Your task to perform on an android device: Open accessibility settings Image 0: 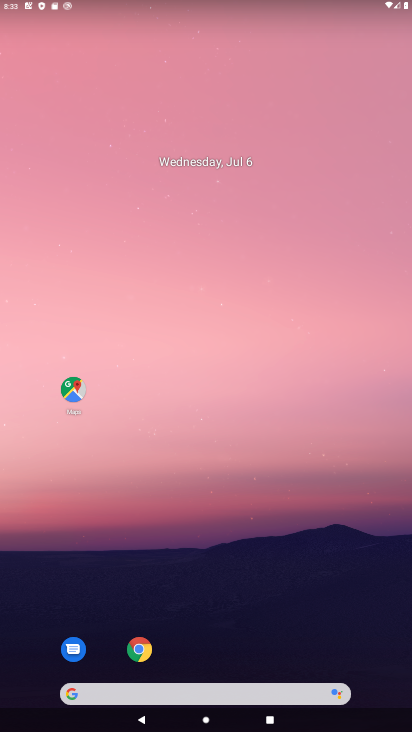
Step 0: drag from (257, 641) to (247, 10)
Your task to perform on an android device: Open accessibility settings Image 1: 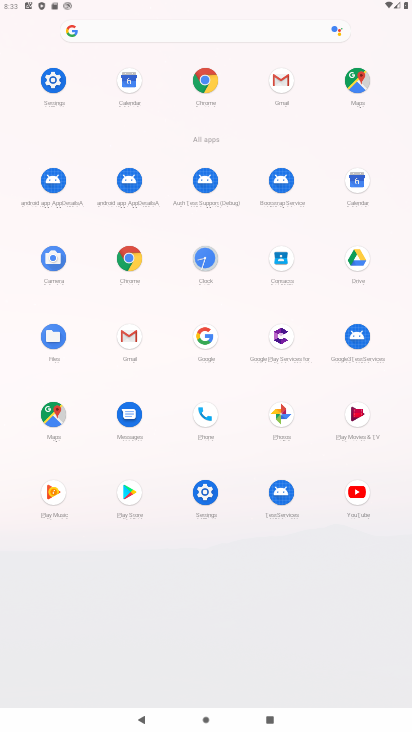
Step 1: click (214, 498)
Your task to perform on an android device: Open accessibility settings Image 2: 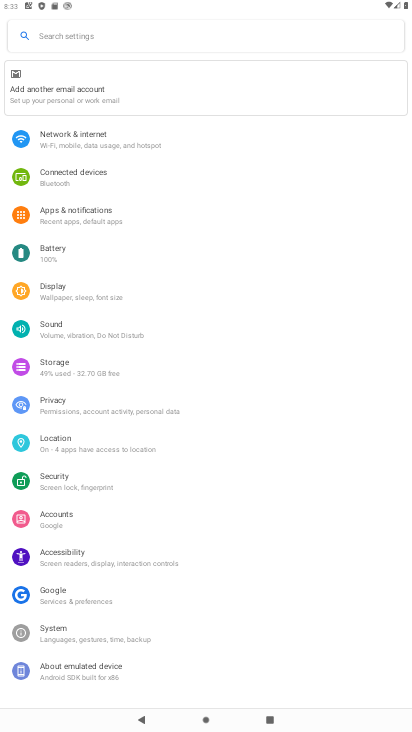
Step 2: click (111, 564)
Your task to perform on an android device: Open accessibility settings Image 3: 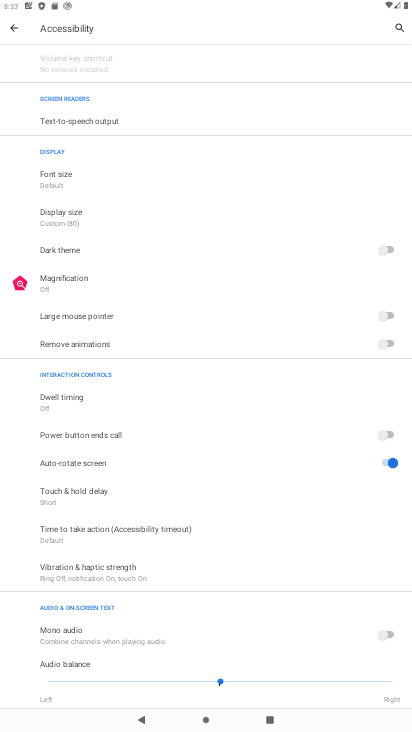
Step 3: task complete